Your task to perform on an android device: Search for pizza restaurants on Maps Image 0: 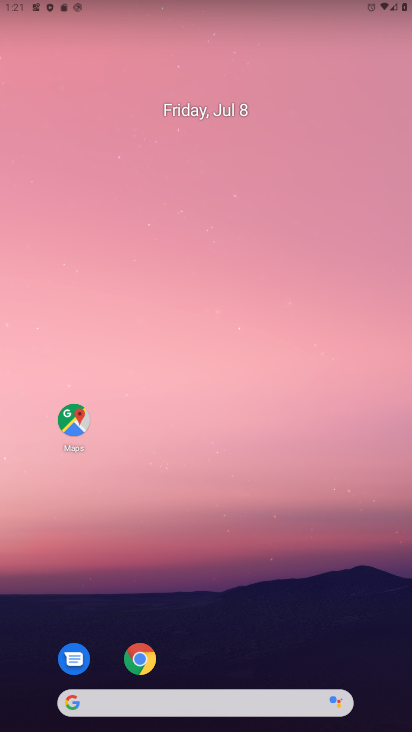
Step 0: click (71, 423)
Your task to perform on an android device: Search for pizza restaurants on Maps Image 1: 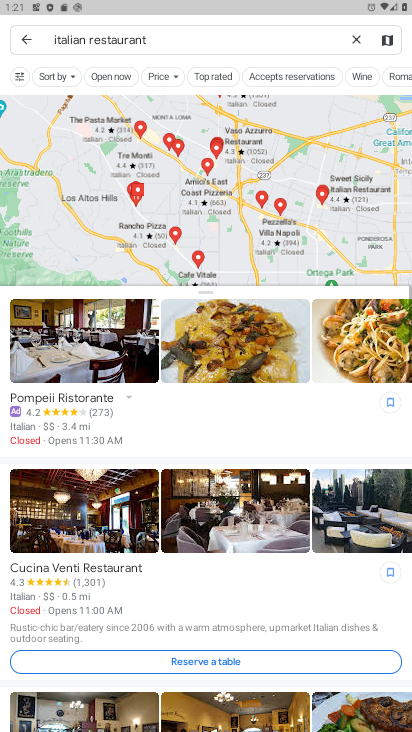
Step 1: click (357, 39)
Your task to perform on an android device: Search for pizza restaurants on Maps Image 2: 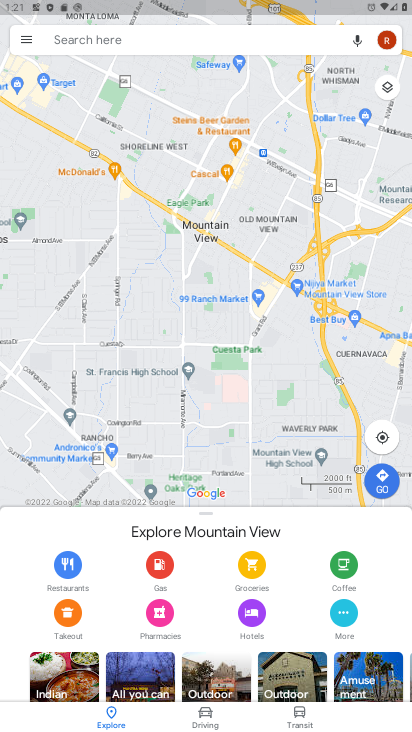
Step 2: click (189, 34)
Your task to perform on an android device: Search for pizza restaurants on Maps Image 3: 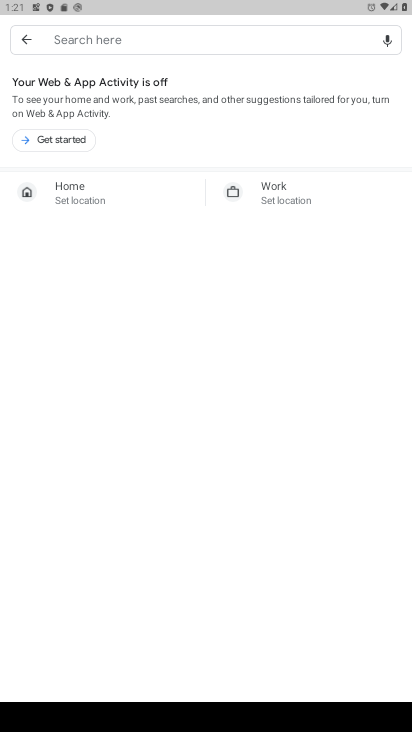
Step 3: type "pizza restaurants"
Your task to perform on an android device: Search for pizza restaurants on Maps Image 4: 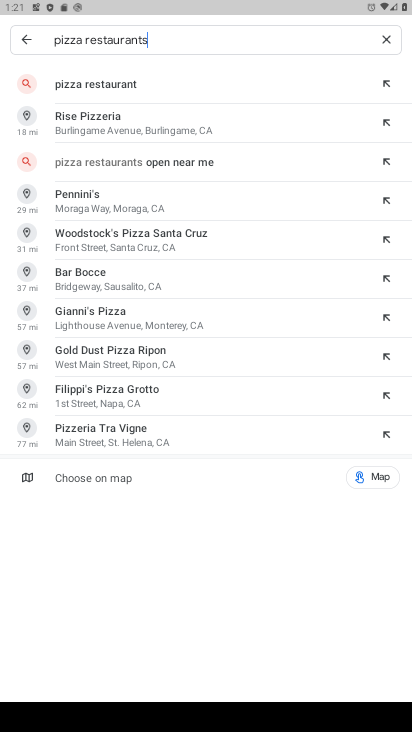
Step 4: click (122, 73)
Your task to perform on an android device: Search for pizza restaurants on Maps Image 5: 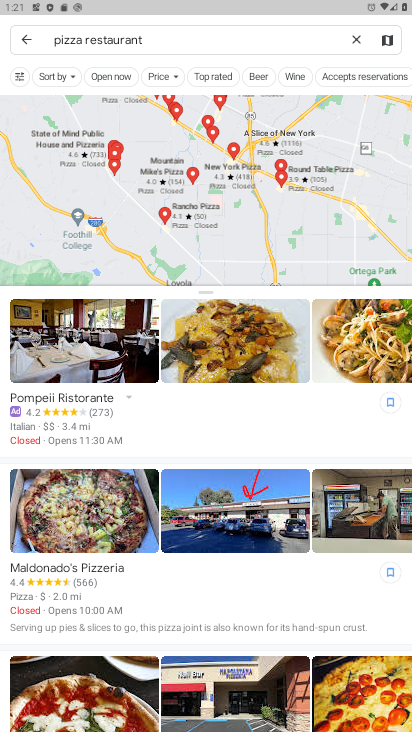
Step 5: task complete